Your task to perform on an android device: Go to CNN.com Image 0: 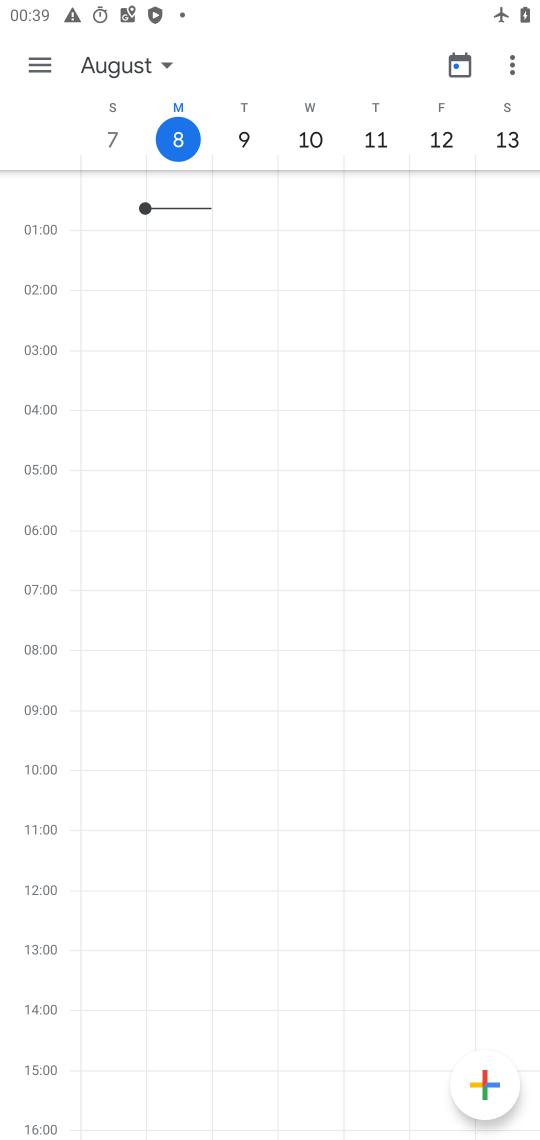
Step 0: press home button
Your task to perform on an android device: Go to CNN.com Image 1: 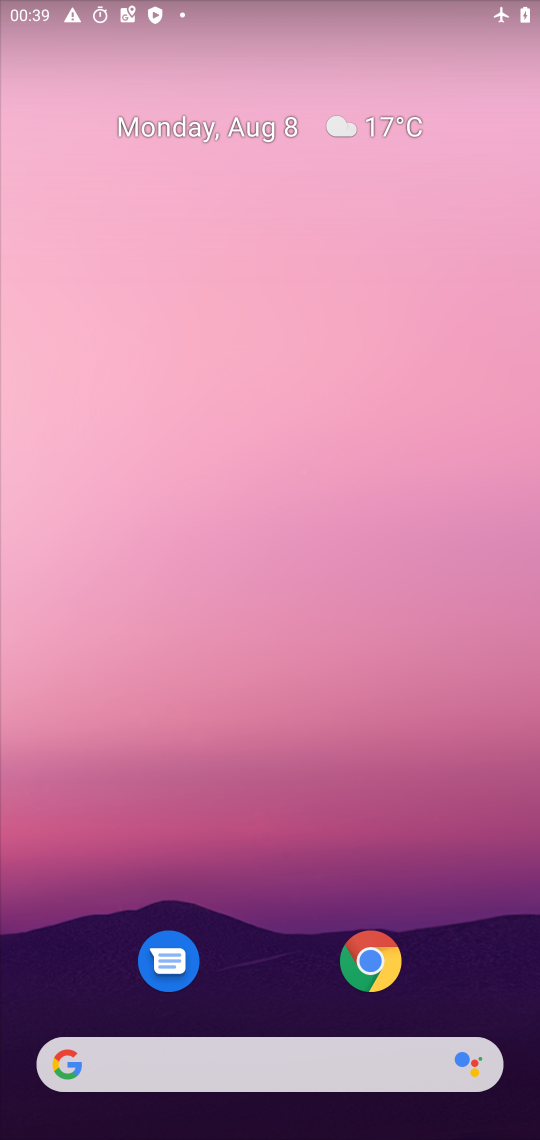
Step 1: drag from (293, 1069) to (89, 123)
Your task to perform on an android device: Go to CNN.com Image 2: 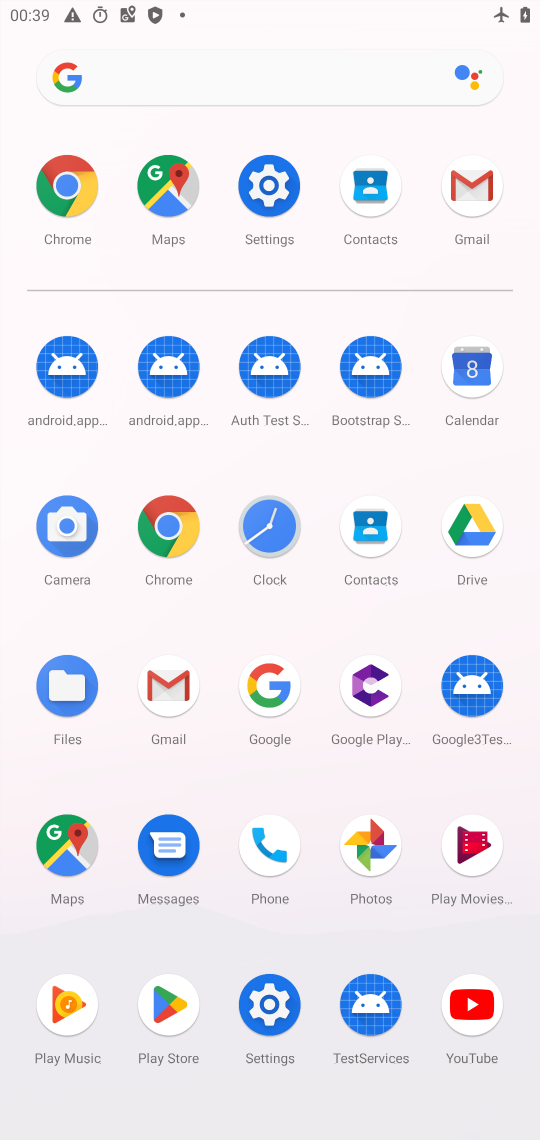
Step 2: click (181, 531)
Your task to perform on an android device: Go to CNN.com Image 3: 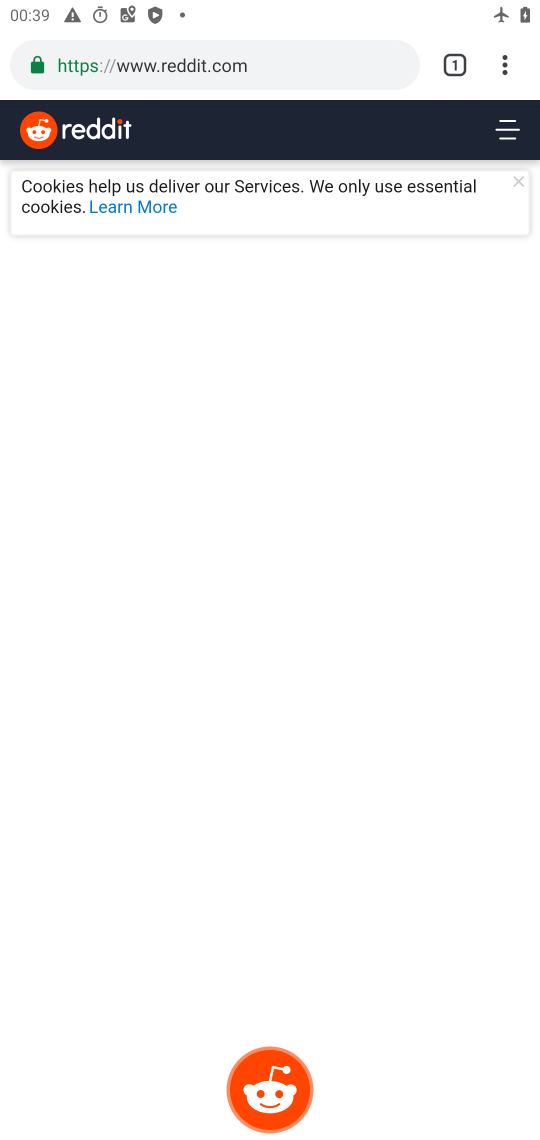
Step 3: click (175, 43)
Your task to perform on an android device: Go to CNN.com Image 4: 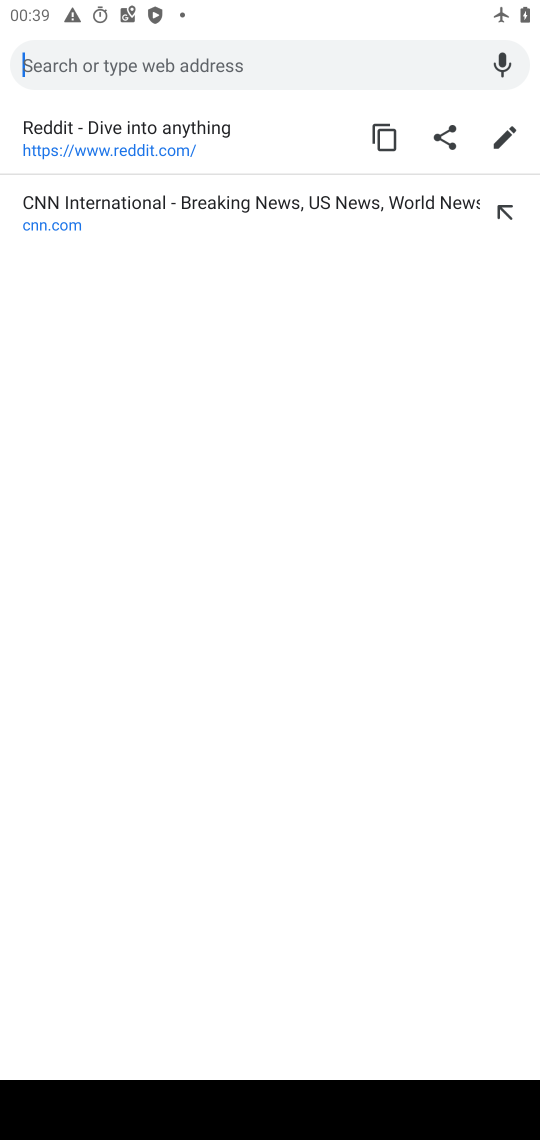
Step 4: type "cnn.com"
Your task to perform on an android device: Go to CNN.com Image 5: 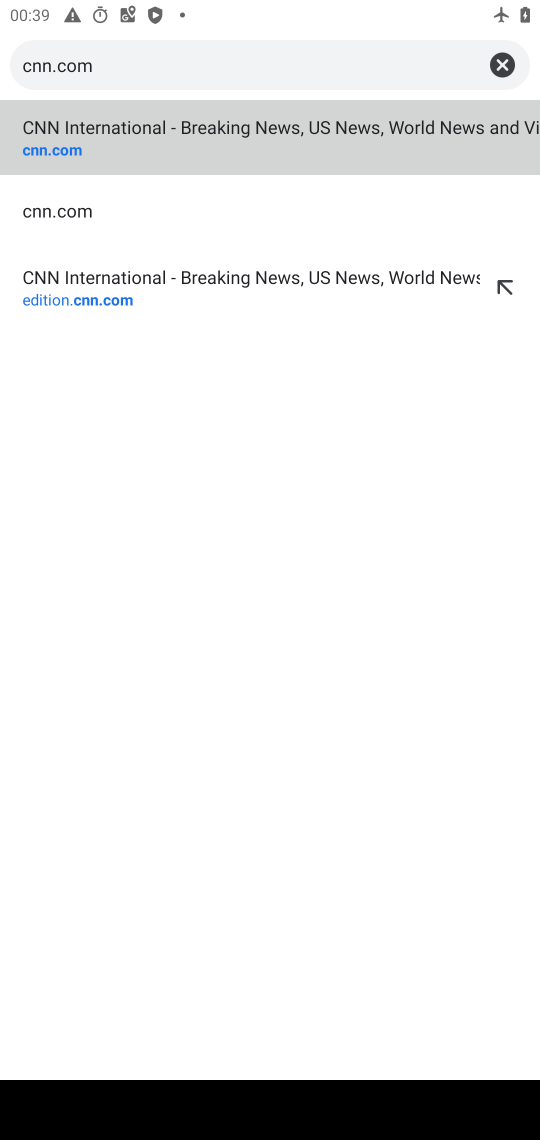
Step 5: click (155, 142)
Your task to perform on an android device: Go to CNN.com Image 6: 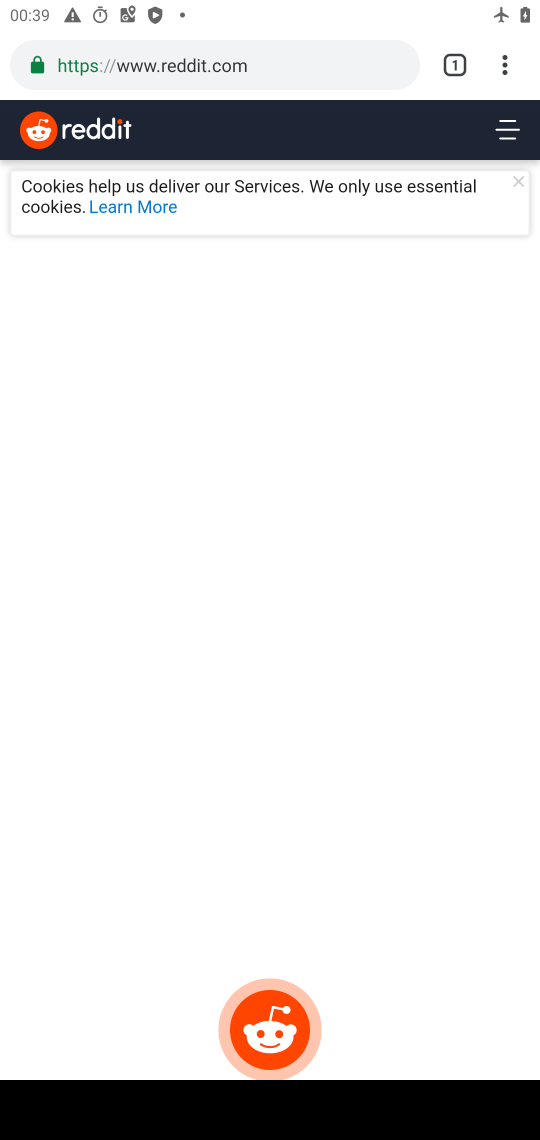
Step 6: task complete